Your task to perform on an android device: Search for sushi restaurants on Maps Image 0: 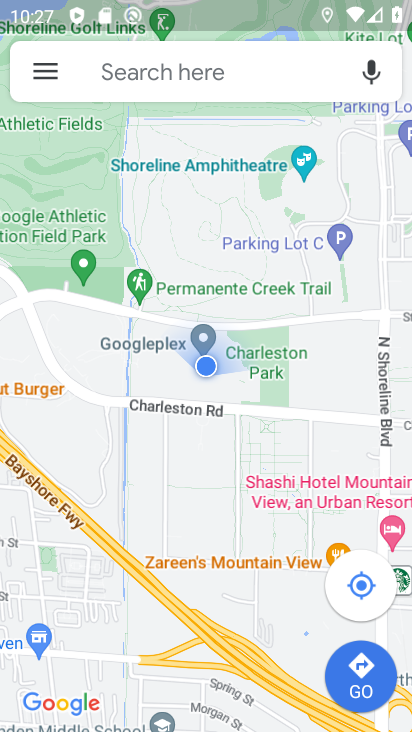
Step 0: click (175, 71)
Your task to perform on an android device: Search for sushi restaurants on Maps Image 1: 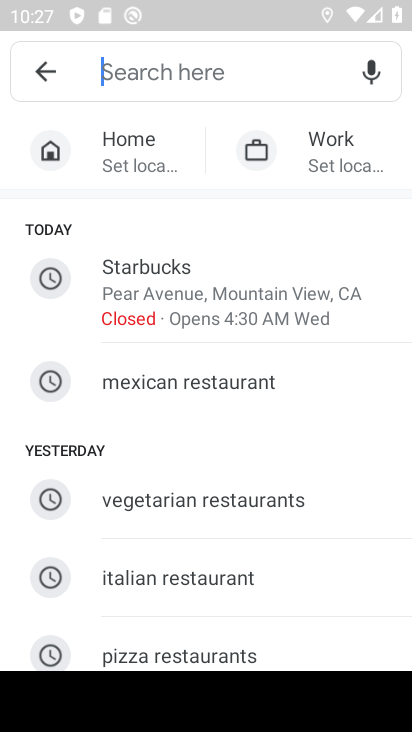
Step 1: drag from (195, 539) to (226, 157)
Your task to perform on an android device: Search for sushi restaurants on Maps Image 2: 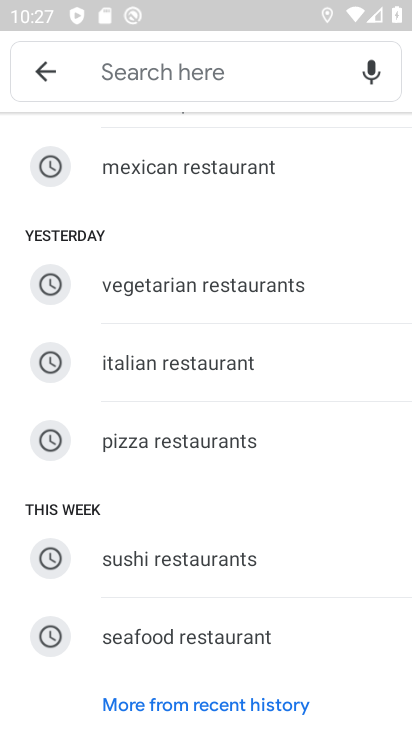
Step 2: click (219, 558)
Your task to perform on an android device: Search for sushi restaurants on Maps Image 3: 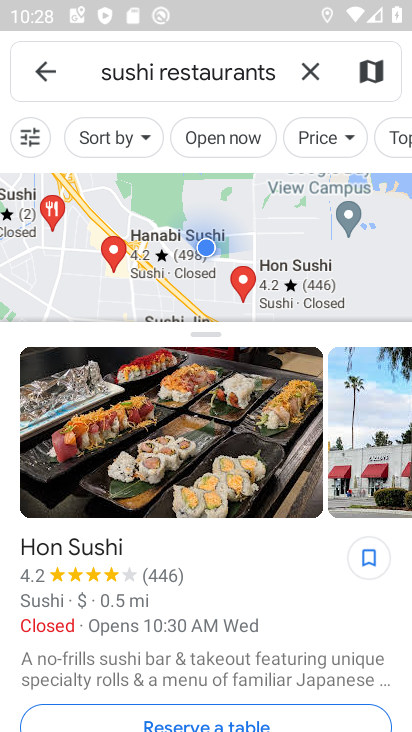
Step 3: task complete